Your task to perform on an android device: find photos in the google photos app Image 0: 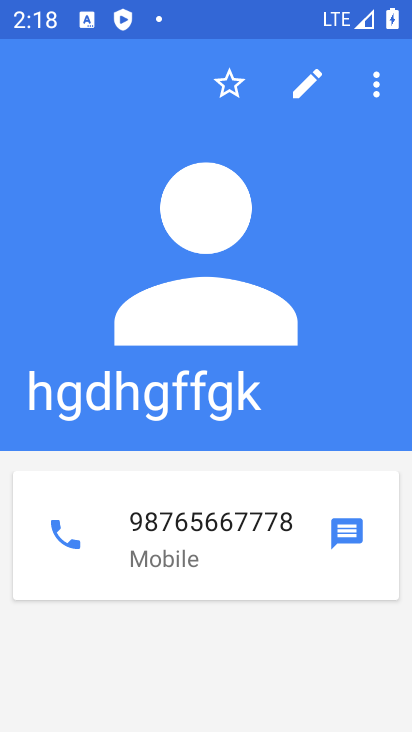
Step 0: press home button
Your task to perform on an android device: find photos in the google photos app Image 1: 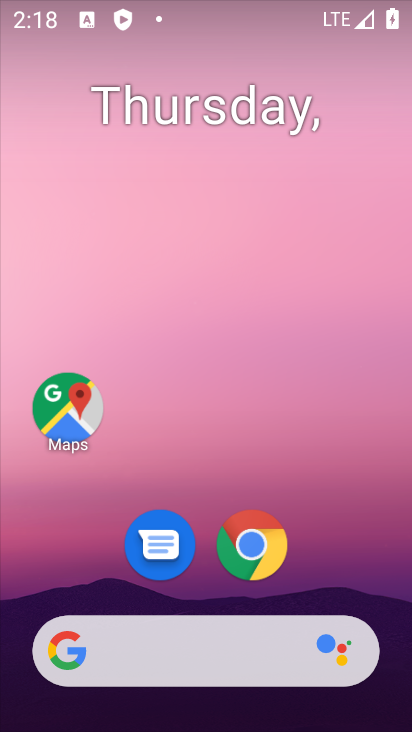
Step 1: drag from (238, 600) to (245, 33)
Your task to perform on an android device: find photos in the google photos app Image 2: 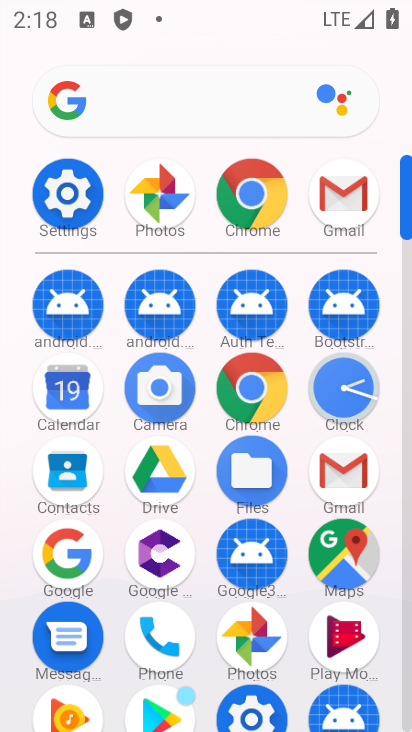
Step 2: click (262, 621)
Your task to perform on an android device: find photos in the google photos app Image 3: 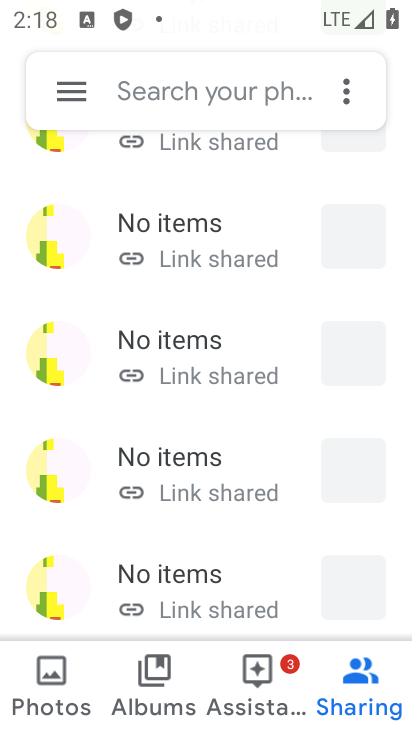
Step 3: click (41, 683)
Your task to perform on an android device: find photos in the google photos app Image 4: 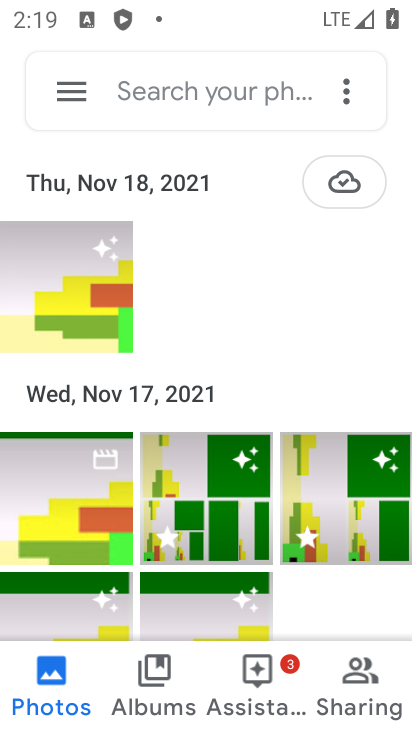
Step 4: task complete